Your task to perform on an android device: manage bookmarks in the chrome app Image 0: 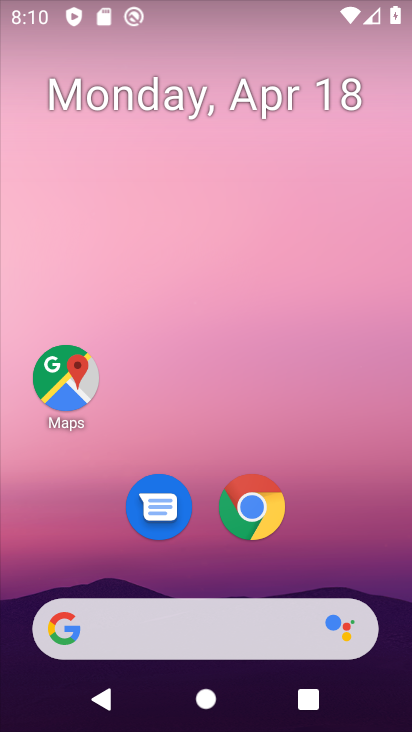
Step 0: drag from (200, 568) to (191, 37)
Your task to perform on an android device: manage bookmarks in the chrome app Image 1: 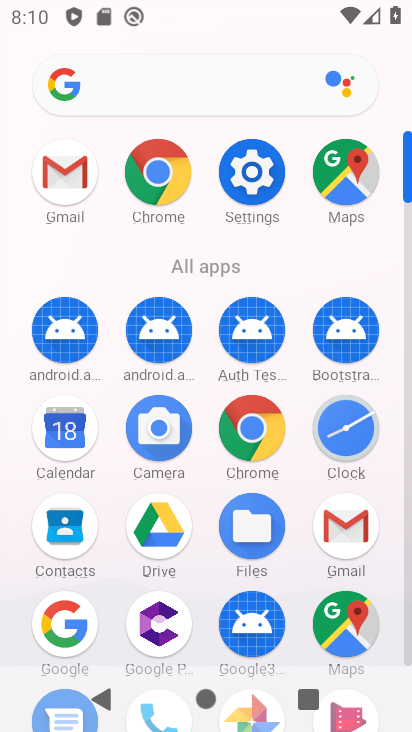
Step 1: click (172, 159)
Your task to perform on an android device: manage bookmarks in the chrome app Image 2: 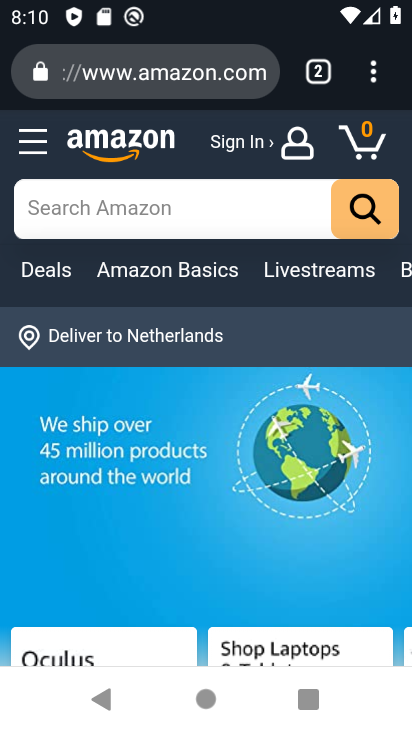
Step 2: click (377, 73)
Your task to perform on an android device: manage bookmarks in the chrome app Image 3: 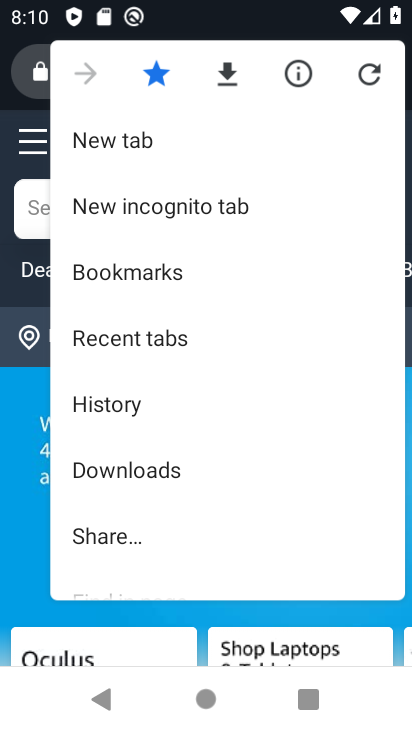
Step 3: click (132, 273)
Your task to perform on an android device: manage bookmarks in the chrome app Image 4: 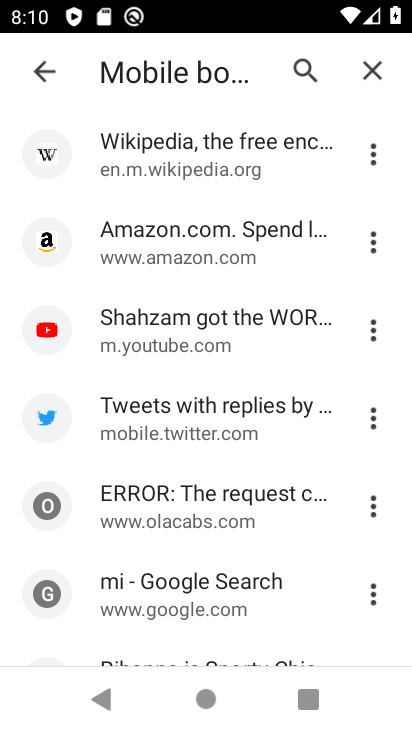
Step 4: click (375, 156)
Your task to perform on an android device: manage bookmarks in the chrome app Image 5: 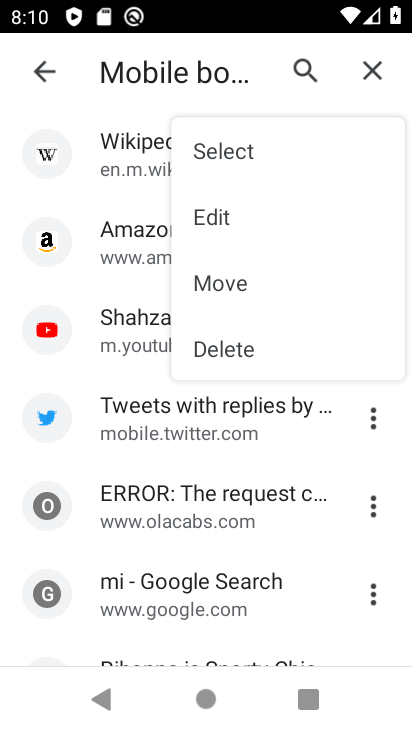
Step 5: click (238, 150)
Your task to perform on an android device: manage bookmarks in the chrome app Image 6: 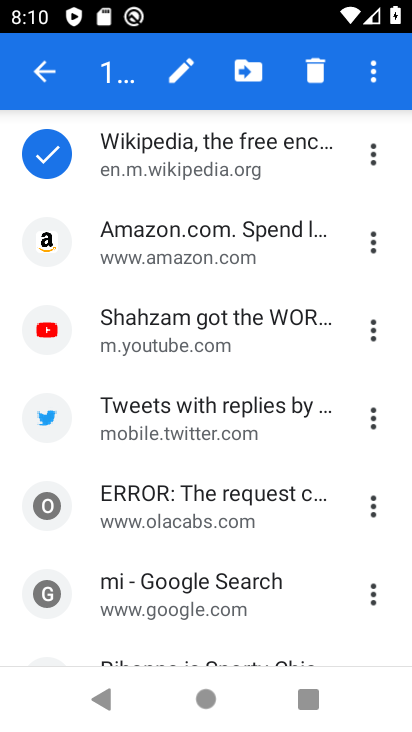
Step 6: click (41, 506)
Your task to perform on an android device: manage bookmarks in the chrome app Image 7: 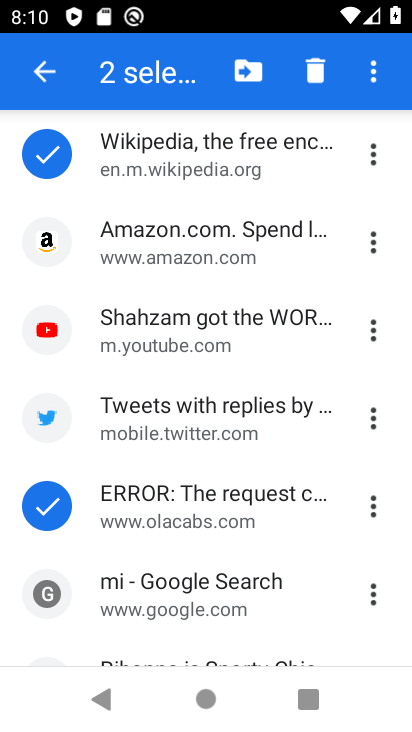
Step 7: click (39, 607)
Your task to perform on an android device: manage bookmarks in the chrome app Image 8: 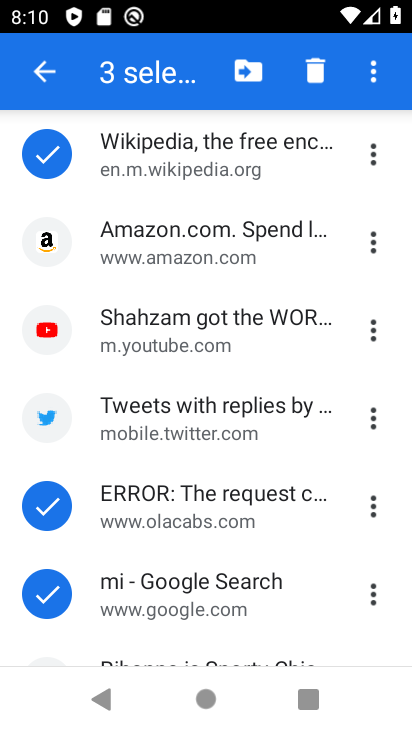
Step 8: click (53, 139)
Your task to perform on an android device: manage bookmarks in the chrome app Image 9: 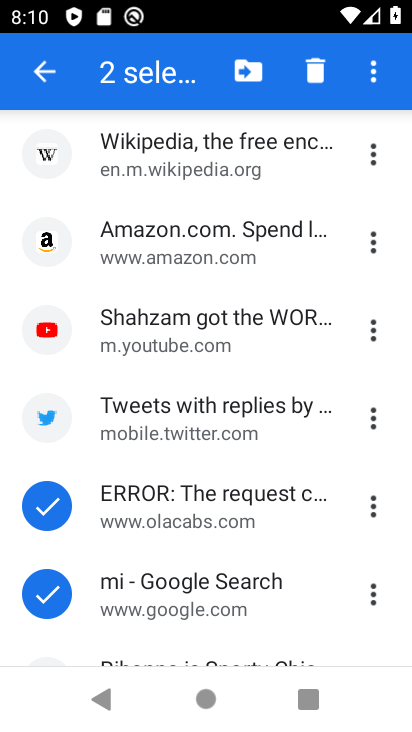
Step 9: click (312, 70)
Your task to perform on an android device: manage bookmarks in the chrome app Image 10: 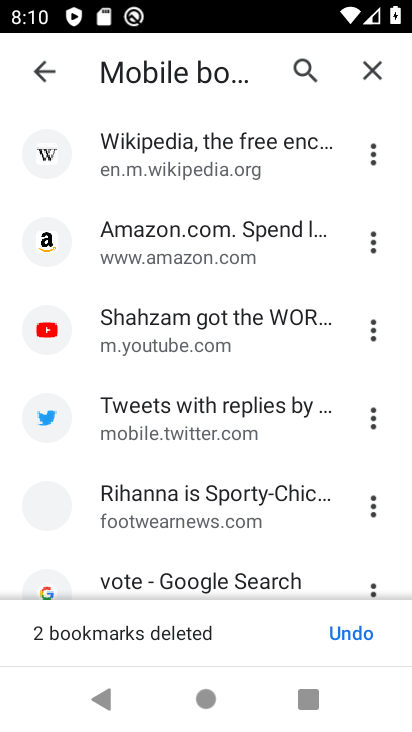
Step 10: task complete